Your task to perform on an android device: check data usage Image 0: 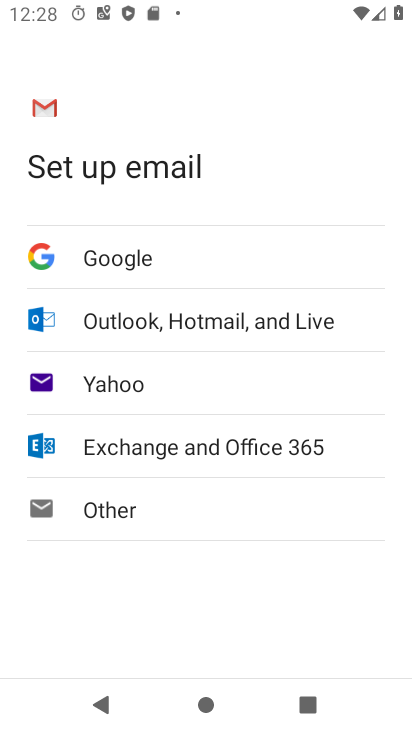
Step 0: press home button
Your task to perform on an android device: check data usage Image 1: 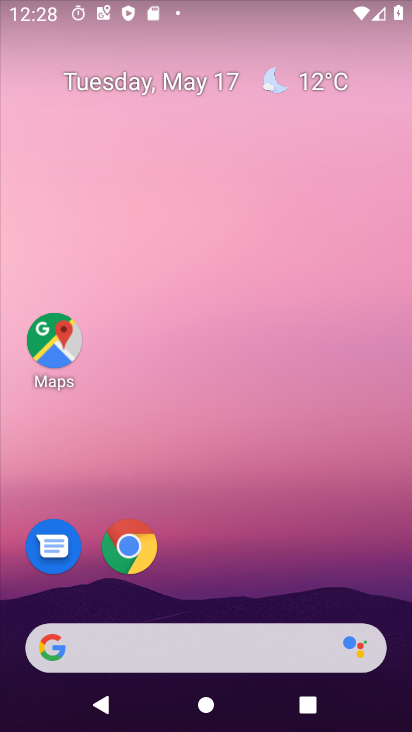
Step 1: drag from (189, 640) to (252, 279)
Your task to perform on an android device: check data usage Image 2: 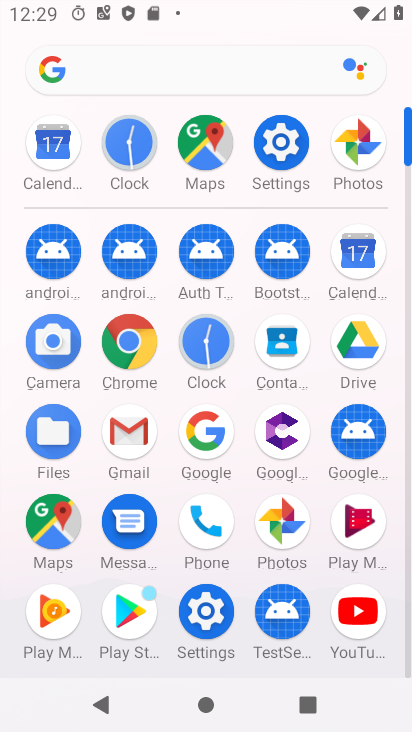
Step 2: click (288, 150)
Your task to perform on an android device: check data usage Image 3: 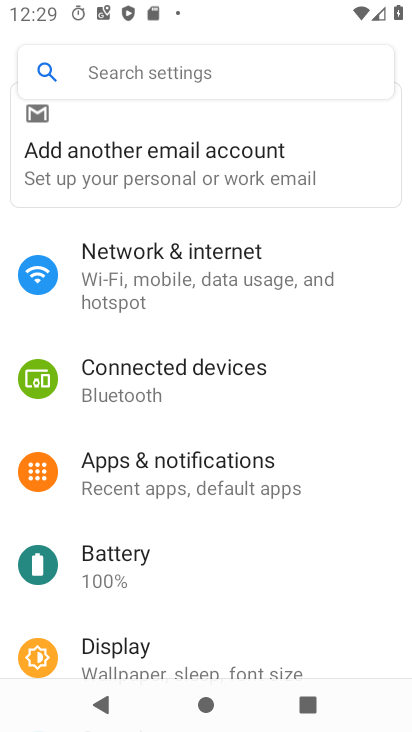
Step 3: click (215, 256)
Your task to perform on an android device: check data usage Image 4: 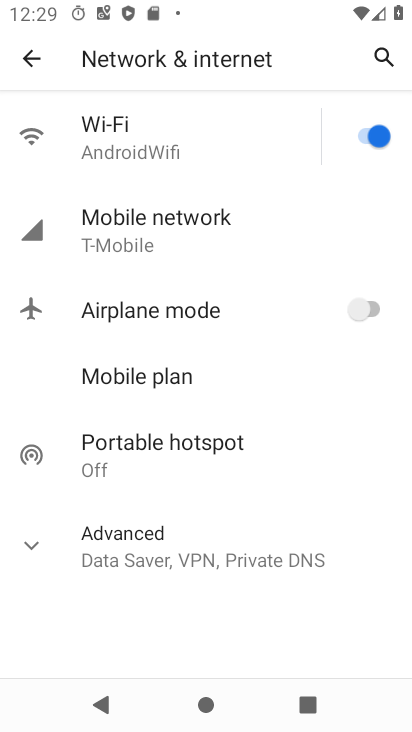
Step 4: click (147, 161)
Your task to perform on an android device: check data usage Image 5: 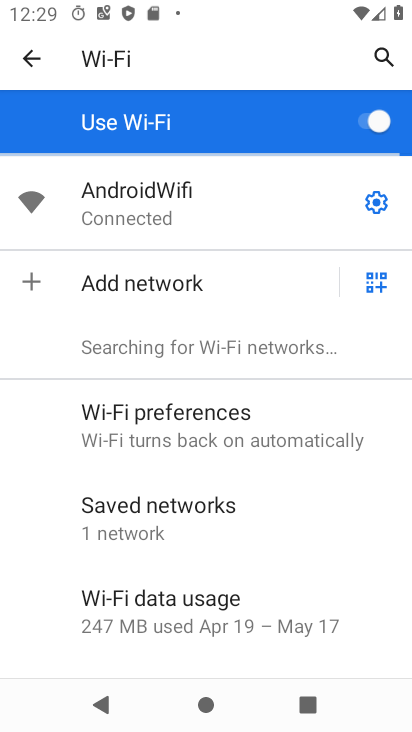
Step 5: click (183, 611)
Your task to perform on an android device: check data usage Image 6: 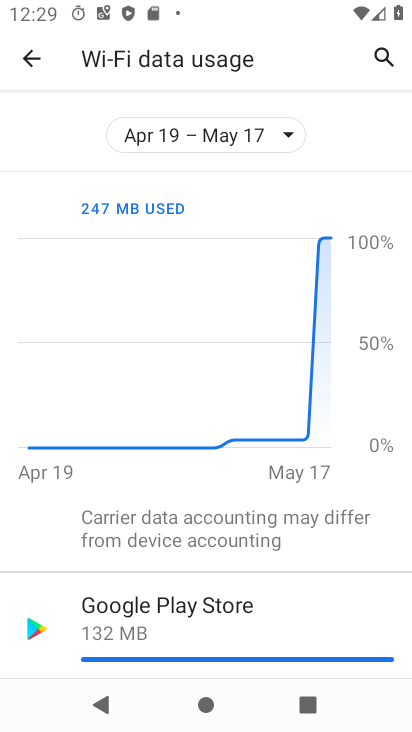
Step 6: task complete